Your task to perform on an android device: search for starred emails in the gmail app Image 0: 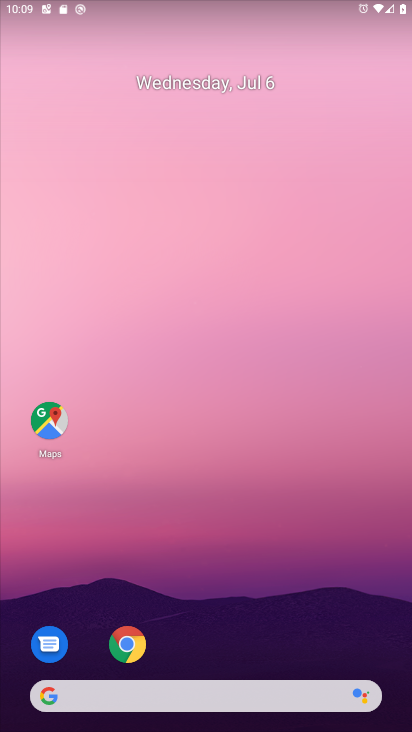
Step 0: drag from (185, 679) to (185, 350)
Your task to perform on an android device: search for starred emails in the gmail app Image 1: 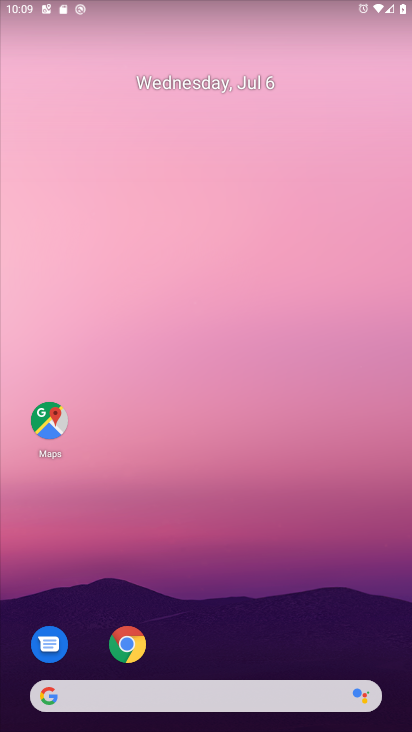
Step 1: drag from (203, 650) to (191, 117)
Your task to perform on an android device: search for starred emails in the gmail app Image 2: 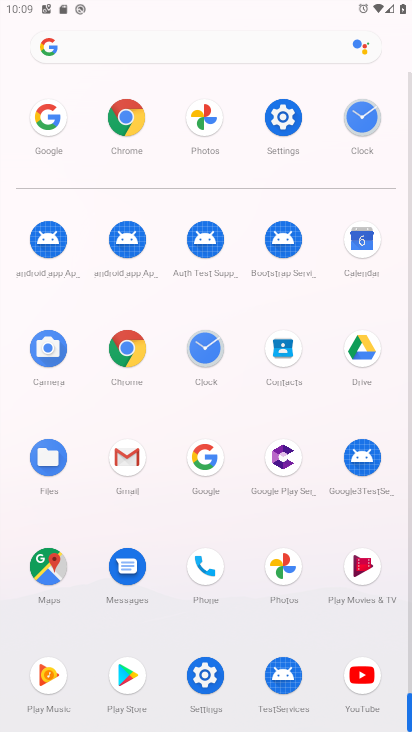
Step 2: click (136, 472)
Your task to perform on an android device: search for starred emails in the gmail app Image 3: 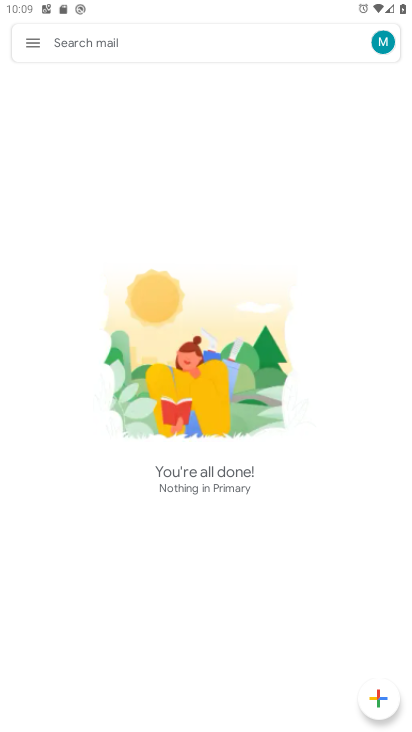
Step 3: drag from (160, 520) to (162, 402)
Your task to perform on an android device: search for starred emails in the gmail app Image 4: 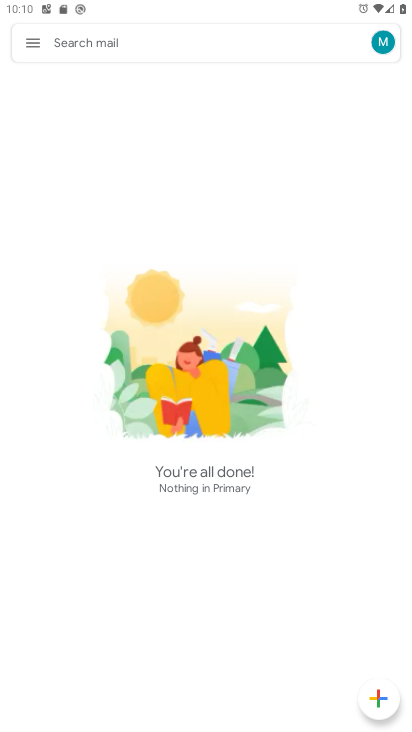
Step 4: click (34, 50)
Your task to perform on an android device: search for starred emails in the gmail app Image 5: 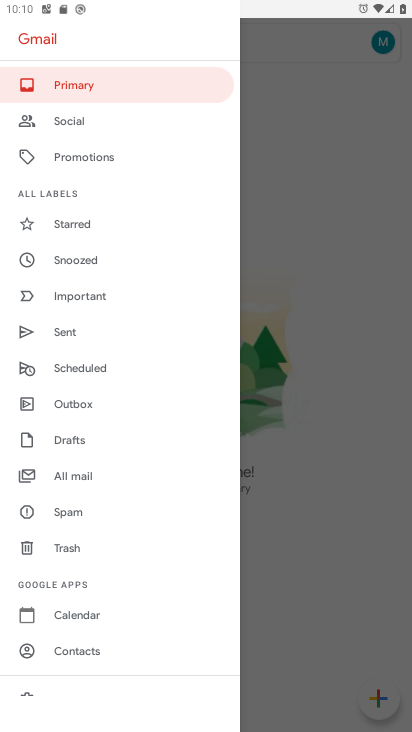
Step 5: click (92, 230)
Your task to perform on an android device: search for starred emails in the gmail app Image 6: 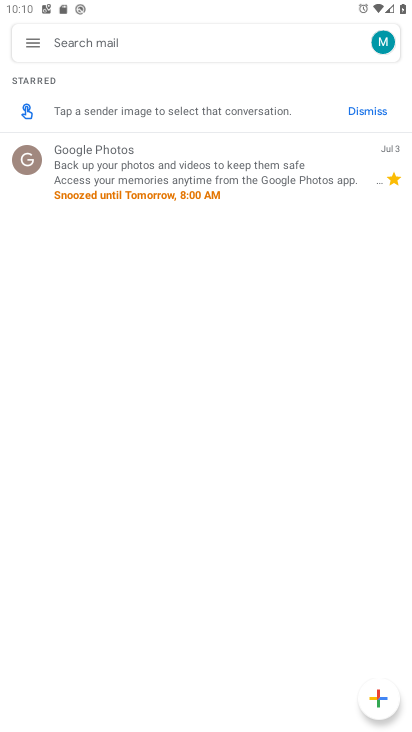
Step 6: task complete